Your task to perform on an android device: Open Google Image 0: 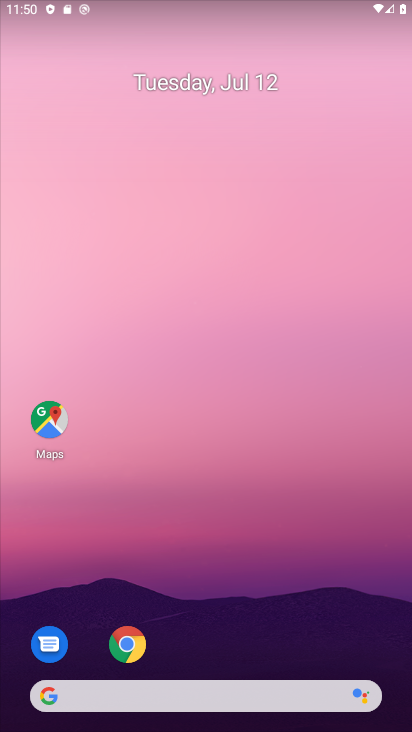
Step 0: press home button
Your task to perform on an android device: Open Google Image 1: 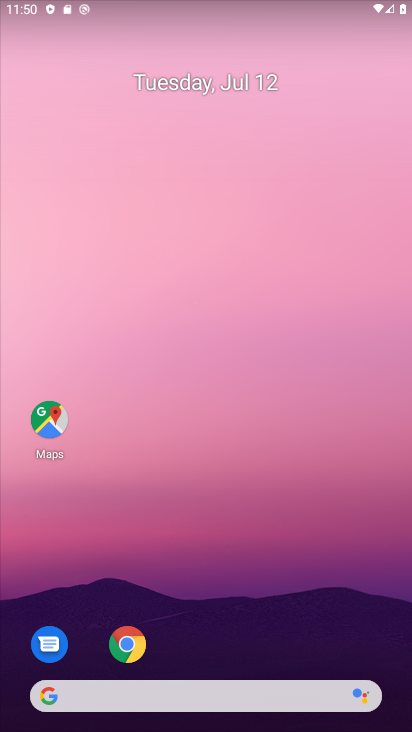
Step 1: drag from (191, 540) to (185, 149)
Your task to perform on an android device: Open Google Image 2: 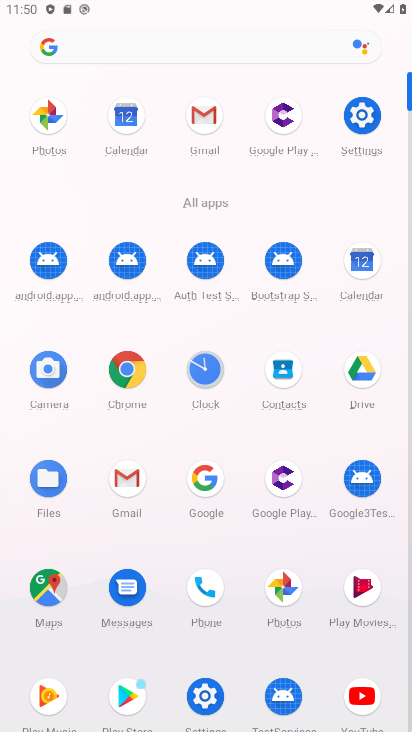
Step 2: click (203, 477)
Your task to perform on an android device: Open Google Image 3: 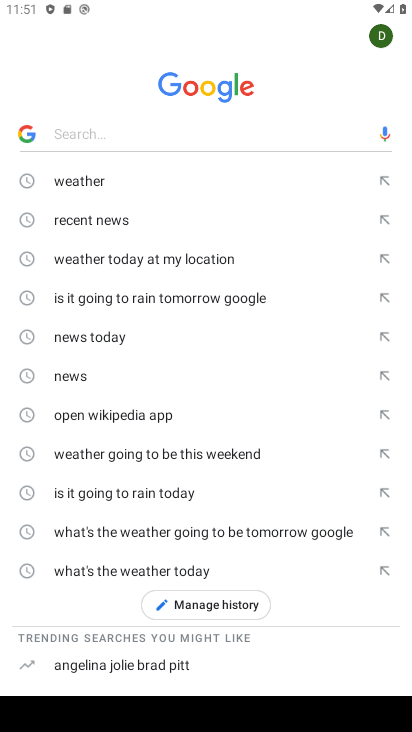
Step 3: task complete